Your task to perform on an android device: Open Google Chrome and open the bookmarks view Image 0: 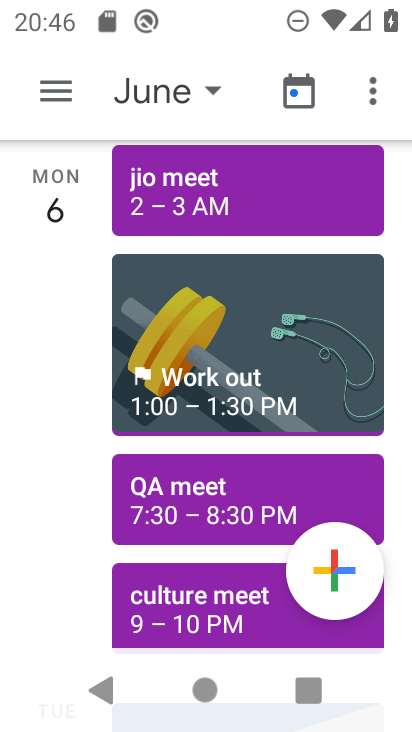
Step 0: press home button
Your task to perform on an android device: Open Google Chrome and open the bookmarks view Image 1: 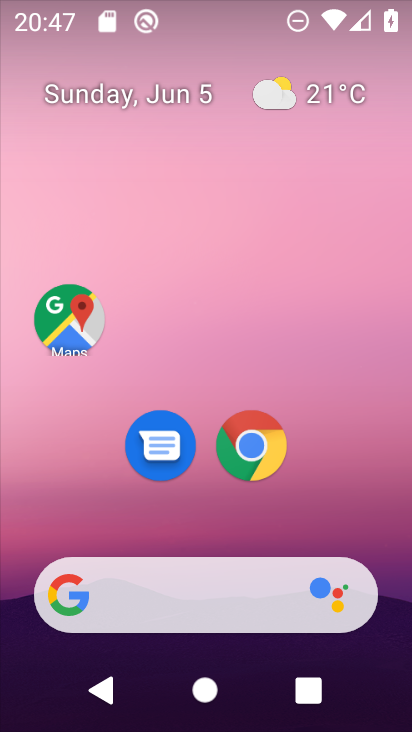
Step 1: click (262, 425)
Your task to perform on an android device: Open Google Chrome and open the bookmarks view Image 2: 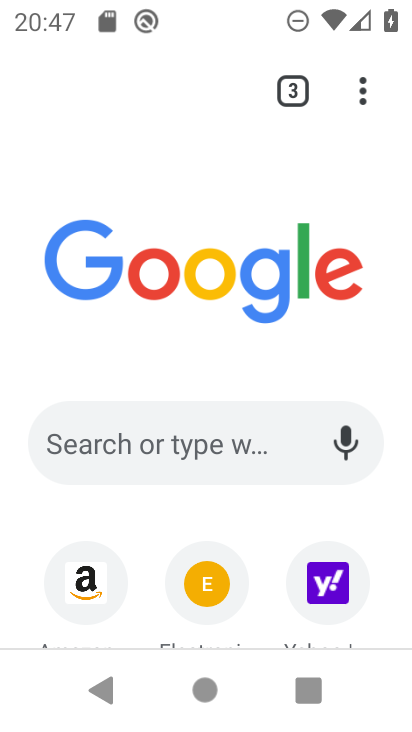
Step 2: task complete